Your task to perform on an android device: turn on sleep mode Image 0: 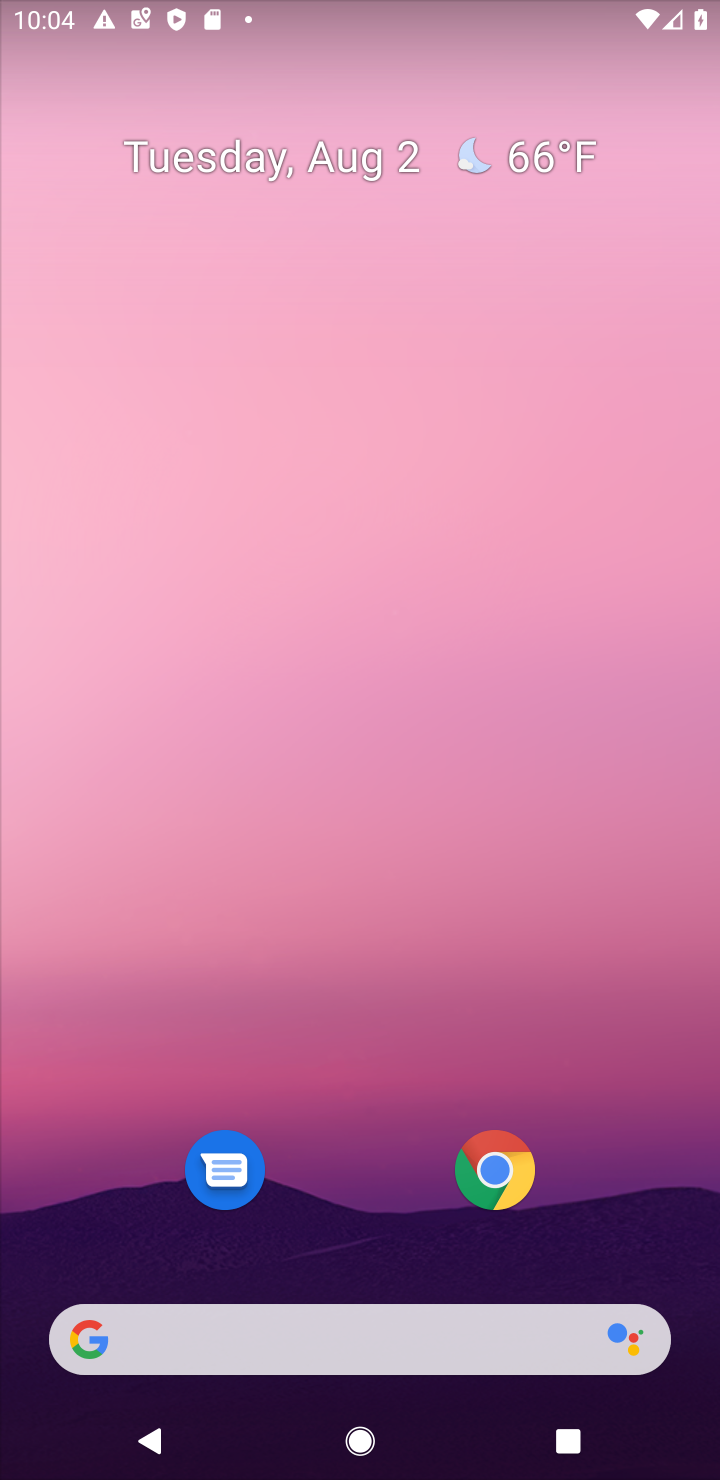
Step 0: click (371, 275)
Your task to perform on an android device: turn on sleep mode Image 1: 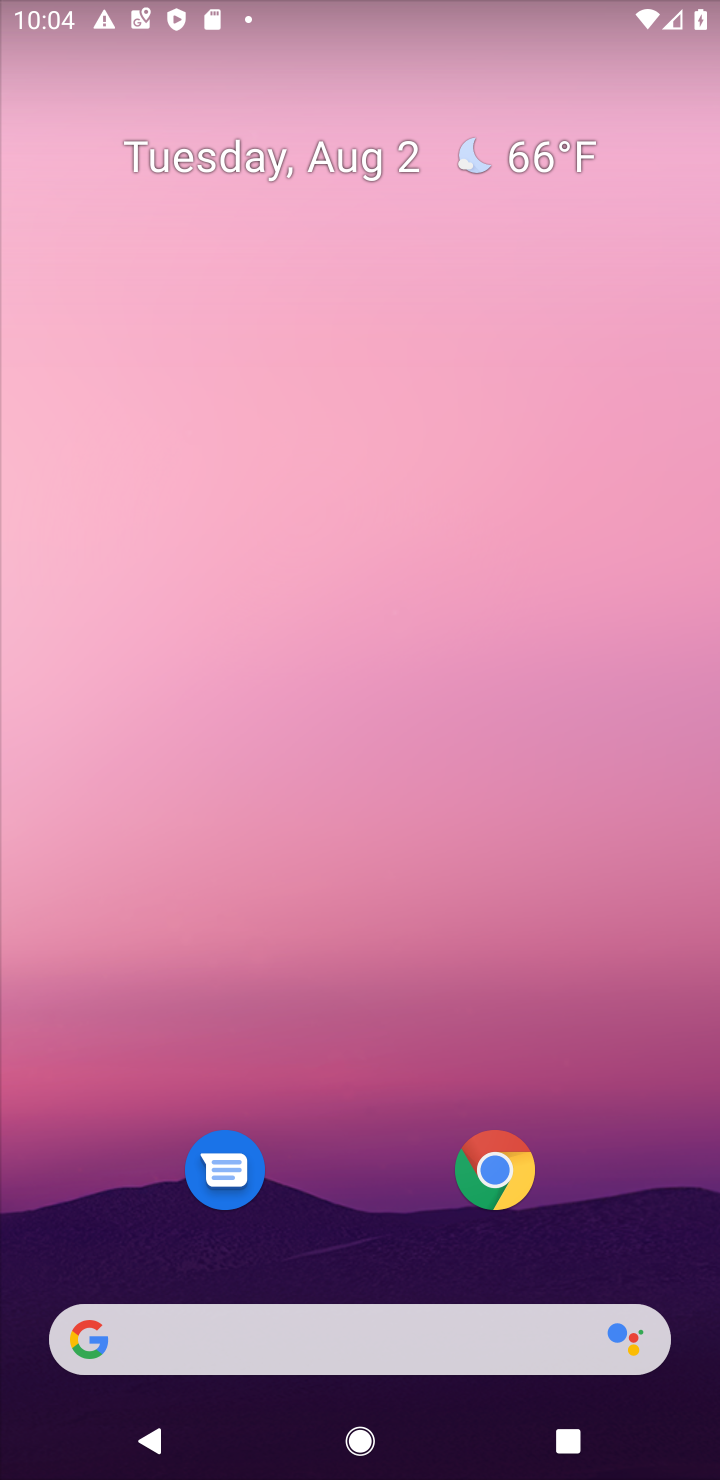
Step 1: drag from (293, 972) to (305, 8)
Your task to perform on an android device: turn on sleep mode Image 2: 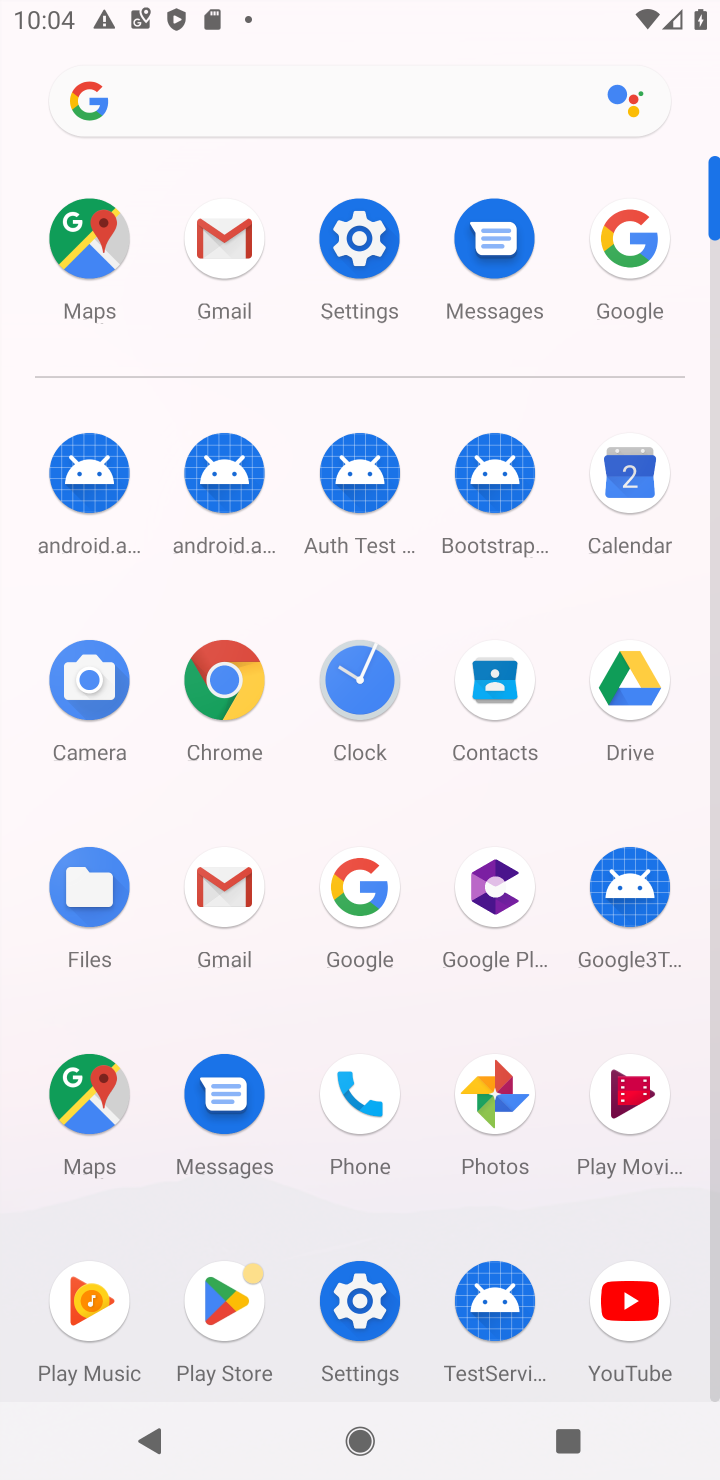
Step 2: click (345, 236)
Your task to perform on an android device: turn on sleep mode Image 3: 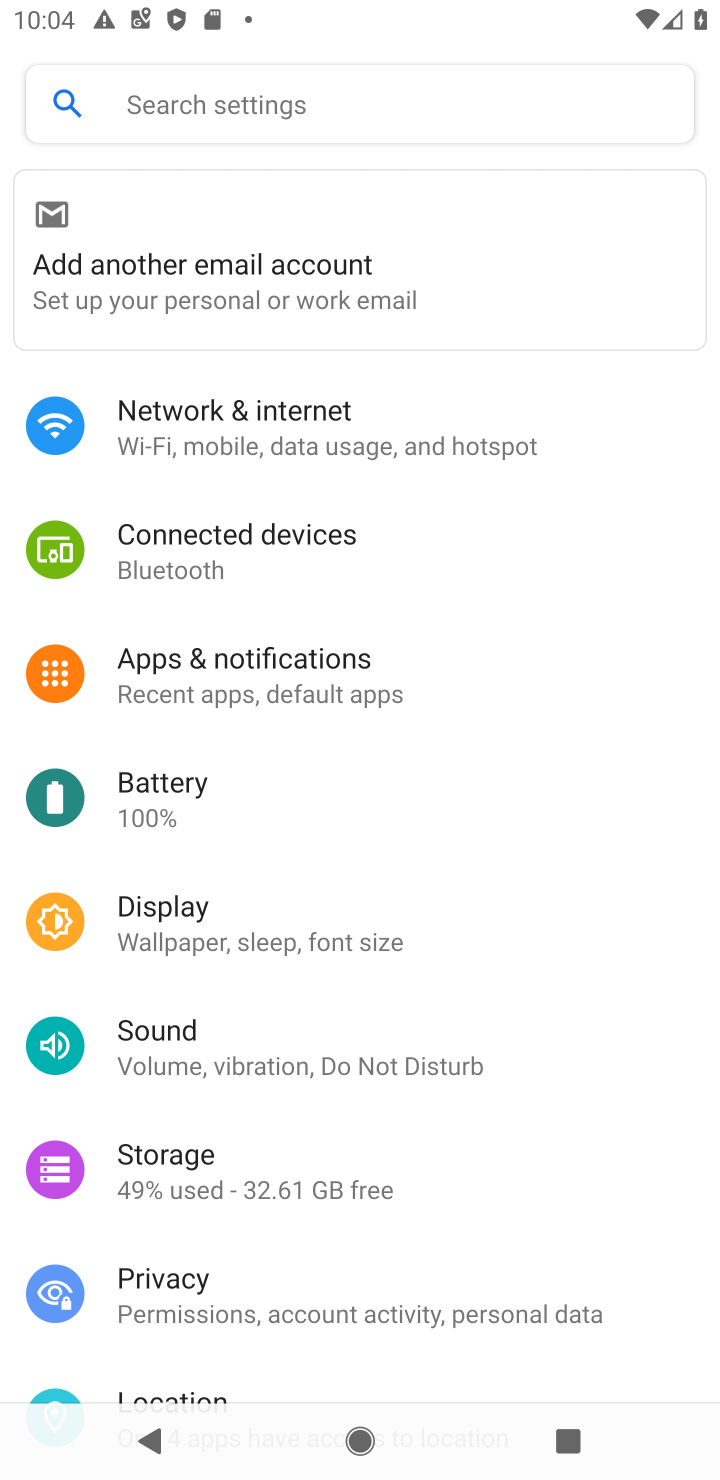
Step 3: task complete